Your task to perform on an android device: toggle javascript in the chrome app Image 0: 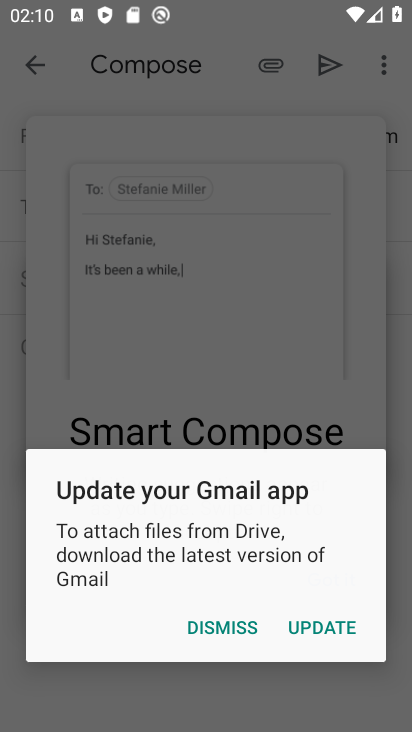
Step 0: press home button
Your task to perform on an android device: toggle javascript in the chrome app Image 1: 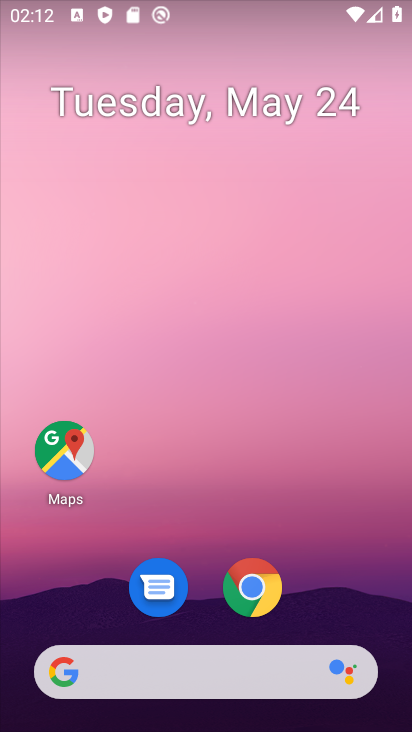
Step 1: click (272, 579)
Your task to perform on an android device: toggle javascript in the chrome app Image 2: 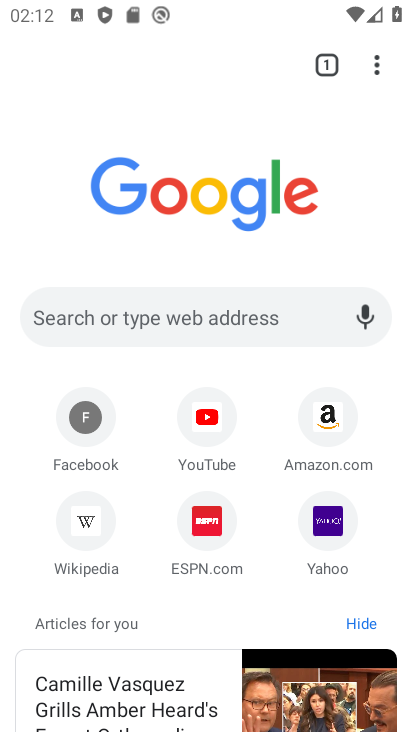
Step 2: click (373, 59)
Your task to perform on an android device: toggle javascript in the chrome app Image 3: 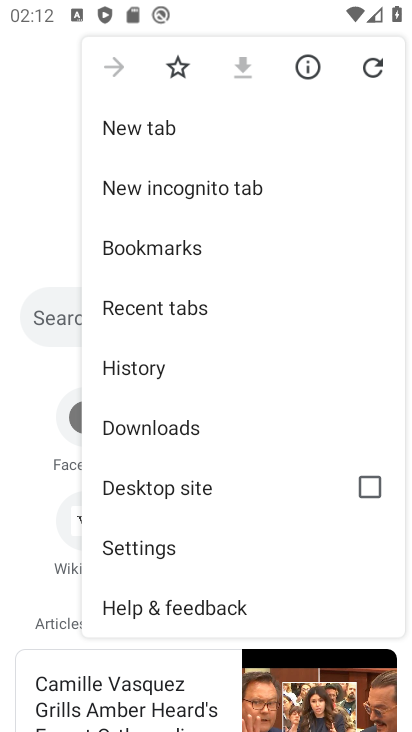
Step 3: click (184, 552)
Your task to perform on an android device: toggle javascript in the chrome app Image 4: 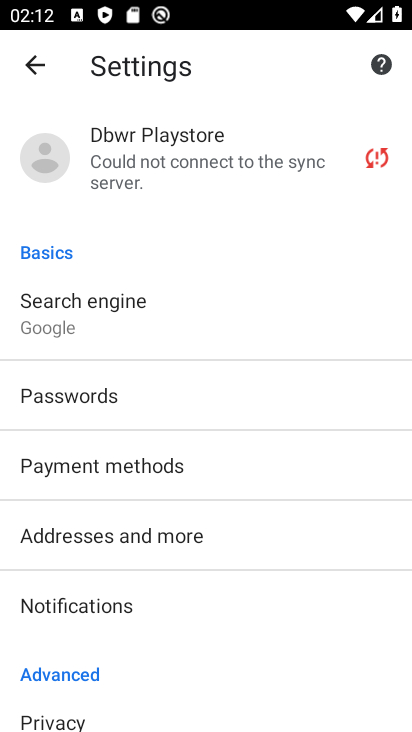
Step 4: drag from (177, 587) to (210, 192)
Your task to perform on an android device: toggle javascript in the chrome app Image 5: 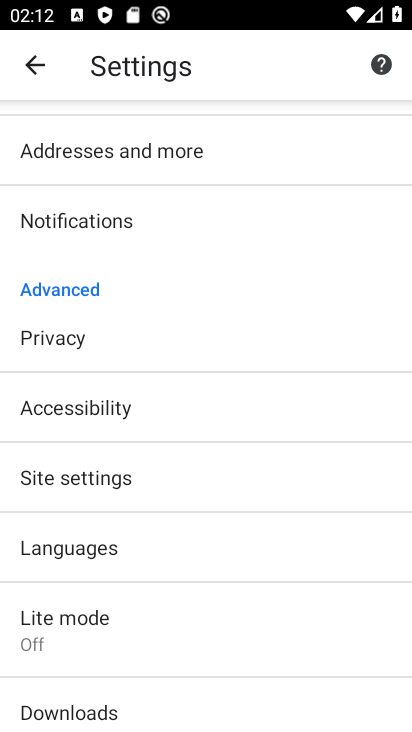
Step 5: click (148, 477)
Your task to perform on an android device: toggle javascript in the chrome app Image 6: 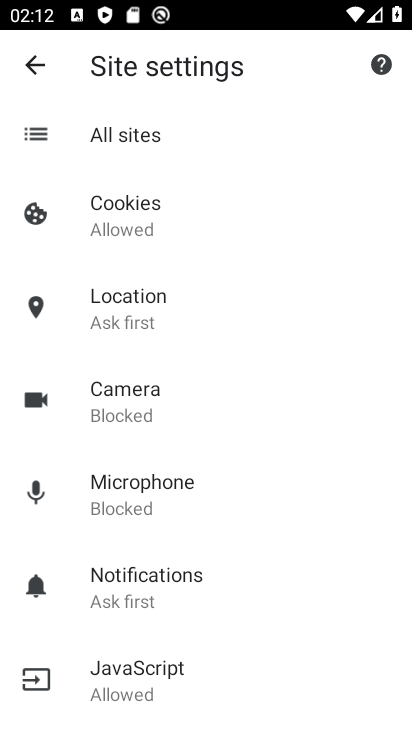
Step 6: click (173, 673)
Your task to perform on an android device: toggle javascript in the chrome app Image 7: 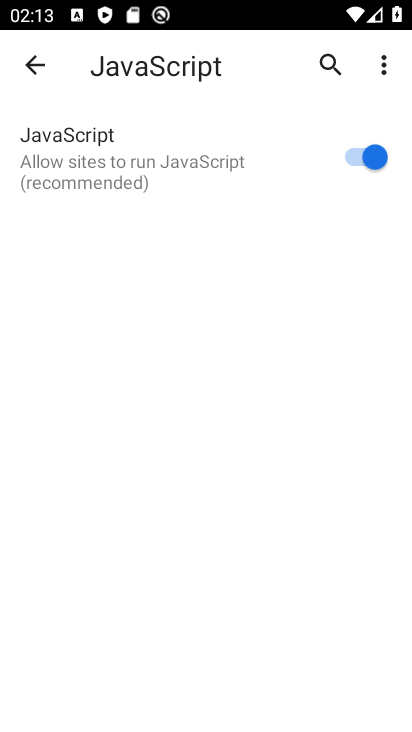
Step 7: click (367, 147)
Your task to perform on an android device: toggle javascript in the chrome app Image 8: 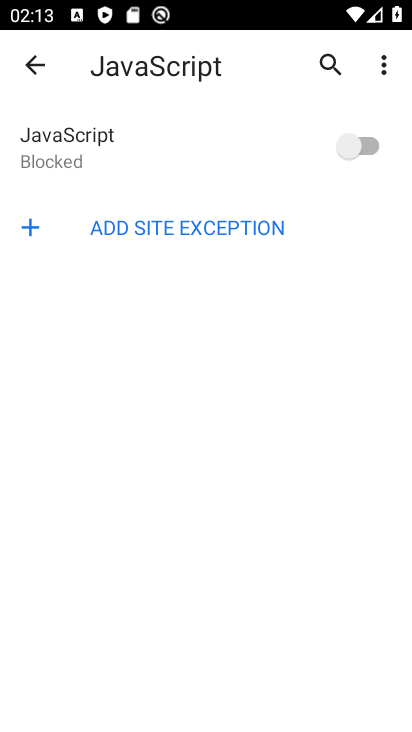
Step 8: task complete